Your task to perform on an android device: Check the news Image 0: 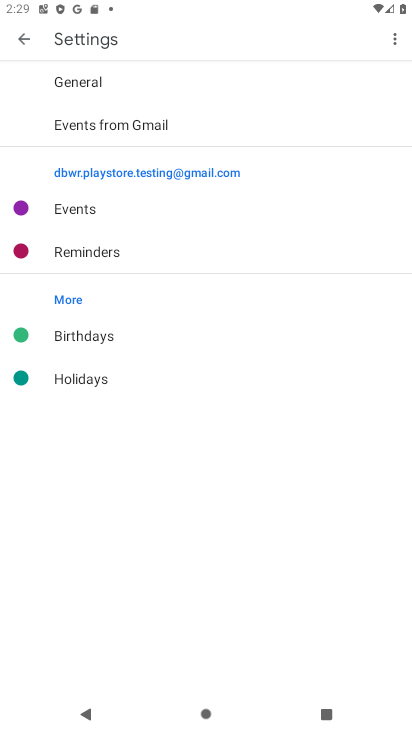
Step 0: press home button
Your task to perform on an android device: Check the news Image 1: 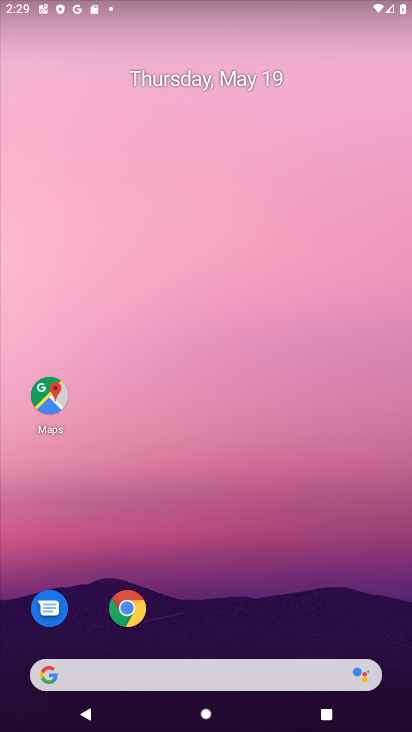
Step 1: click (128, 591)
Your task to perform on an android device: Check the news Image 2: 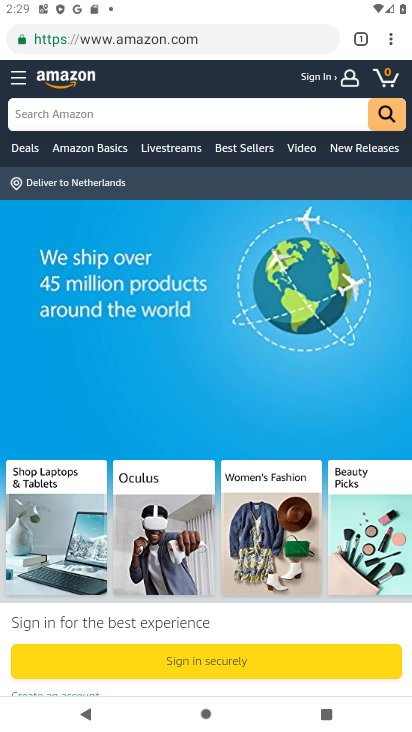
Step 2: click (197, 32)
Your task to perform on an android device: Check the news Image 3: 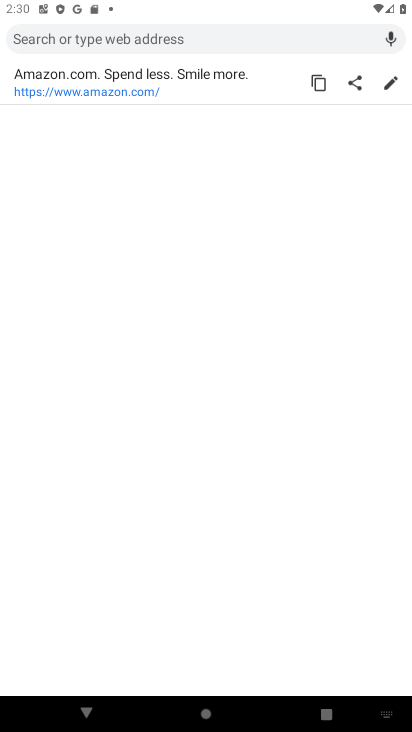
Step 3: click (197, 33)
Your task to perform on an android device: Check the news Image 4: 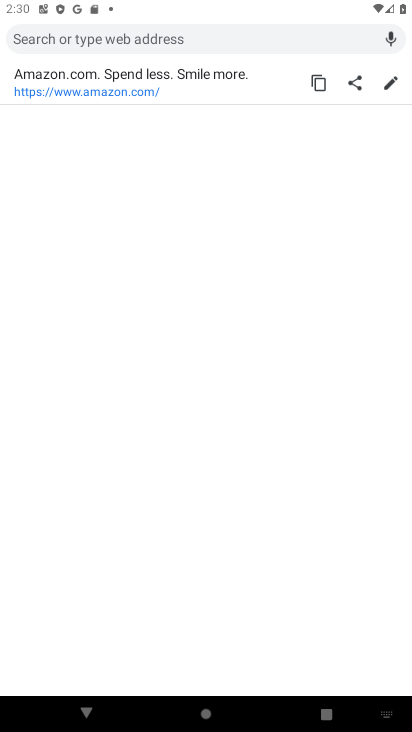
Step 4: type "news"
Your task to perform on an android device: Check the news Image 5: 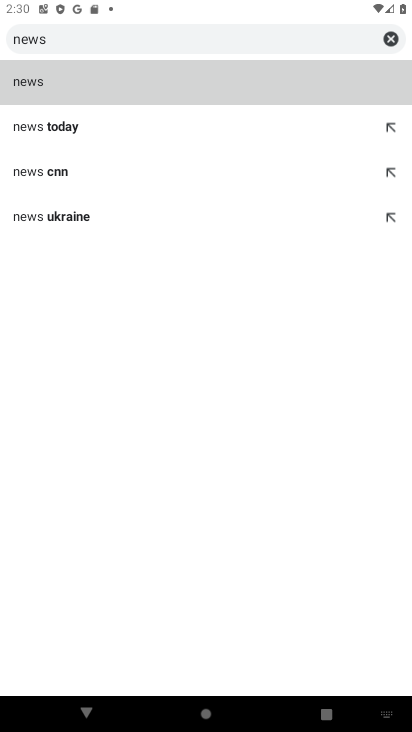
Step 5: click (171, 93)
Your task to perform on an android device: Check the news Image 6: 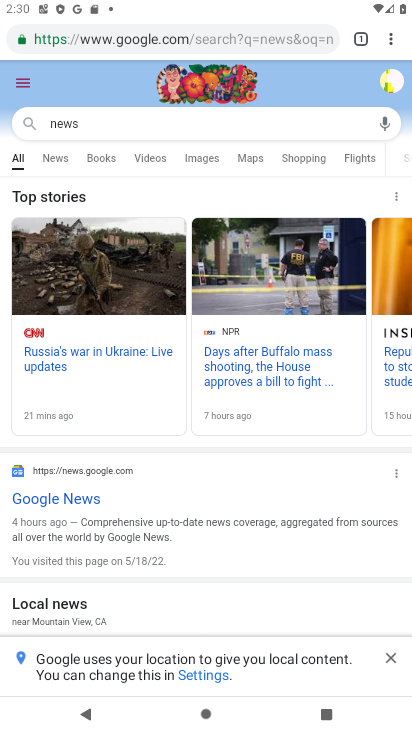
Step 6: task complete